Your task to perform on an android device: Open Wikipedia Image 0: 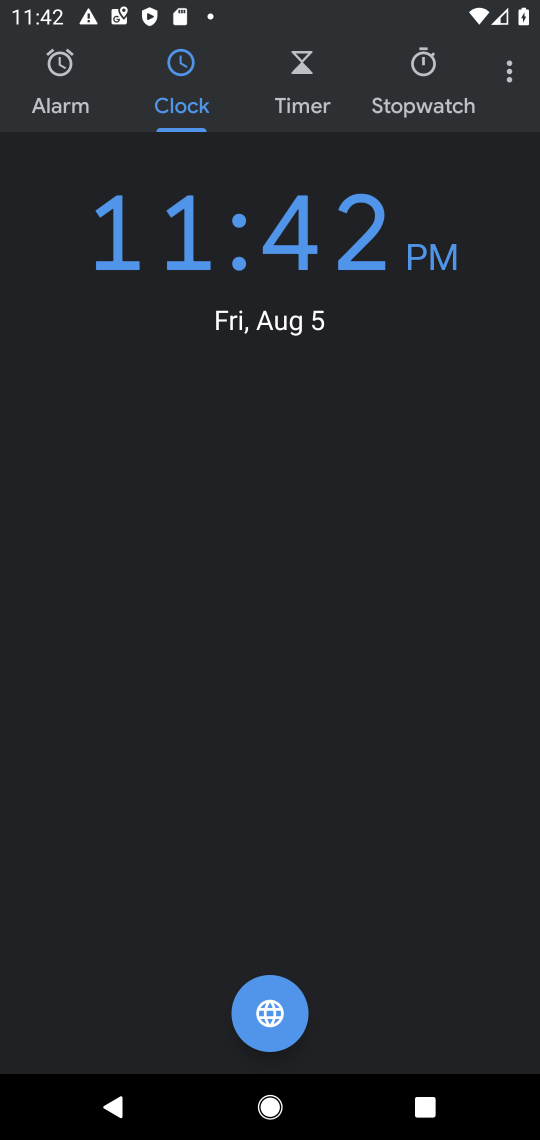
Step 0: press home button
Your task to perform on an android device: Open Wikipedia Image 1: 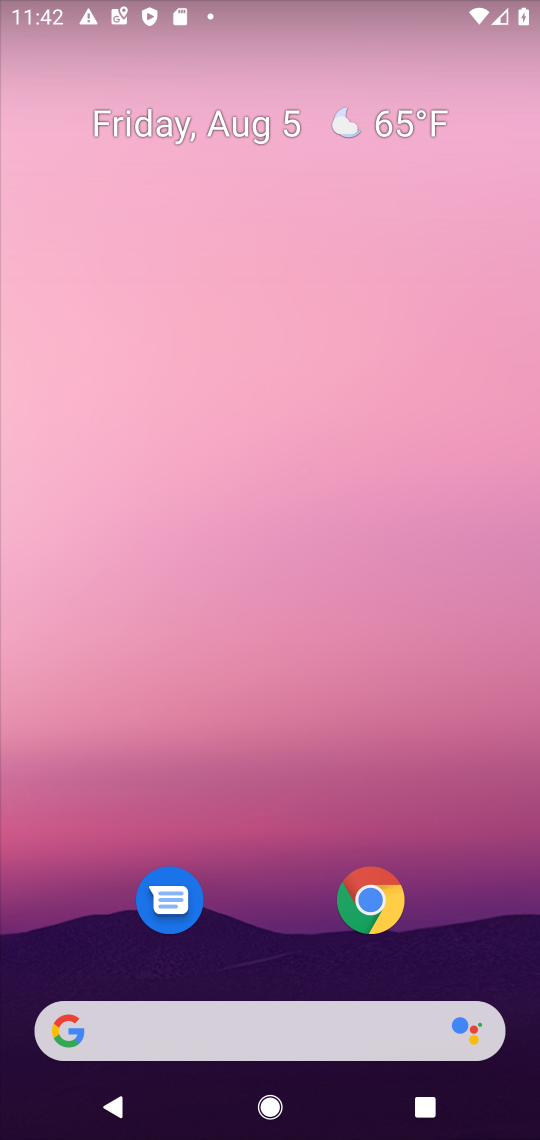
Step 1: click (360, 907)
Your task to perform on an android device: Open Wikipedia Image 2: 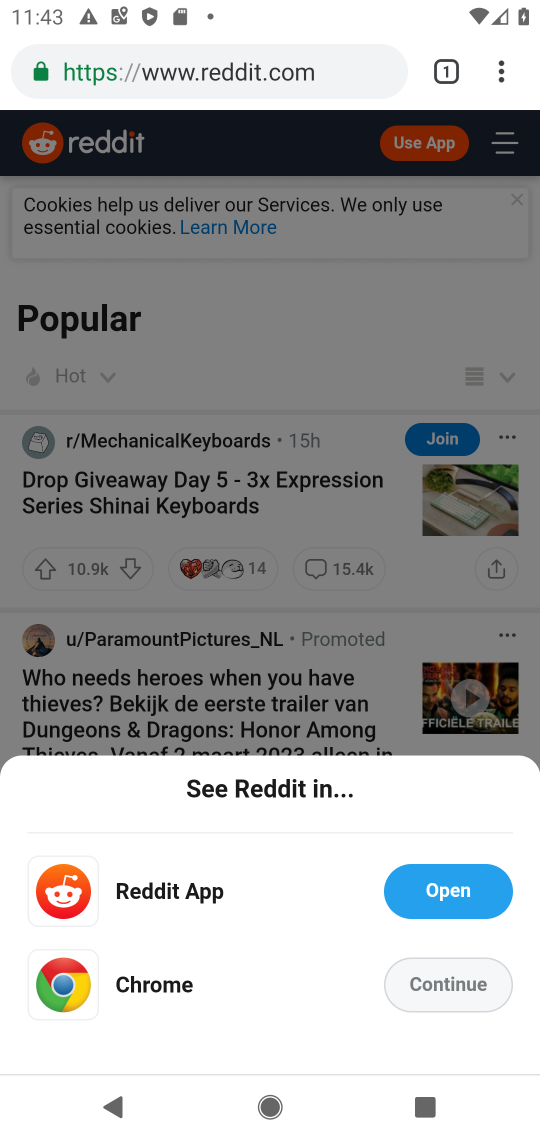
Step 2: click (499, 78)
Your task to perform on an android device: Open Wikipedia Image 3: 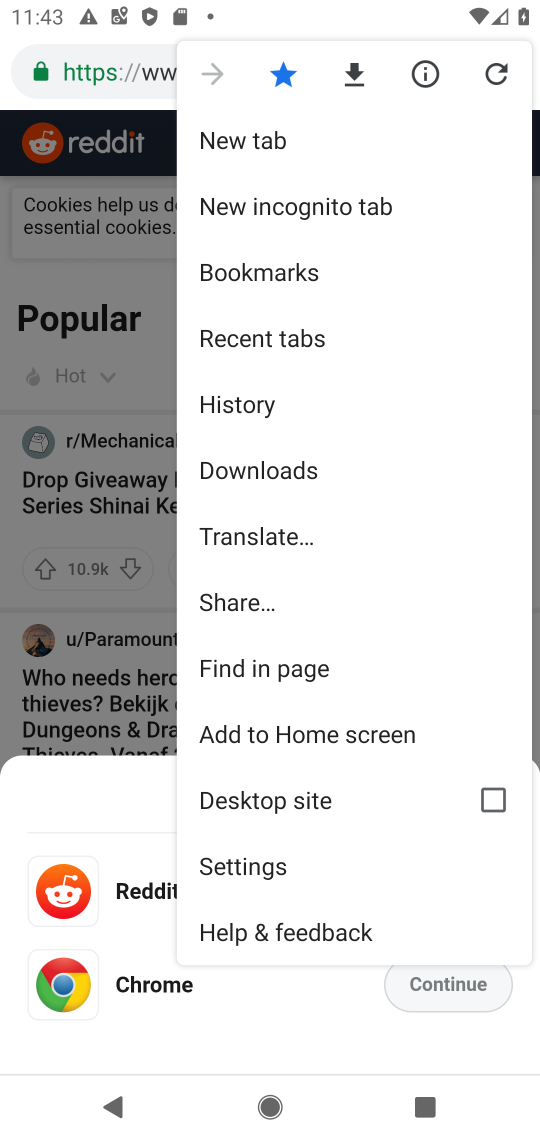
Step 3: click (241, 137)
Your task to perform on an android device: Open Wikipedia Image 4: 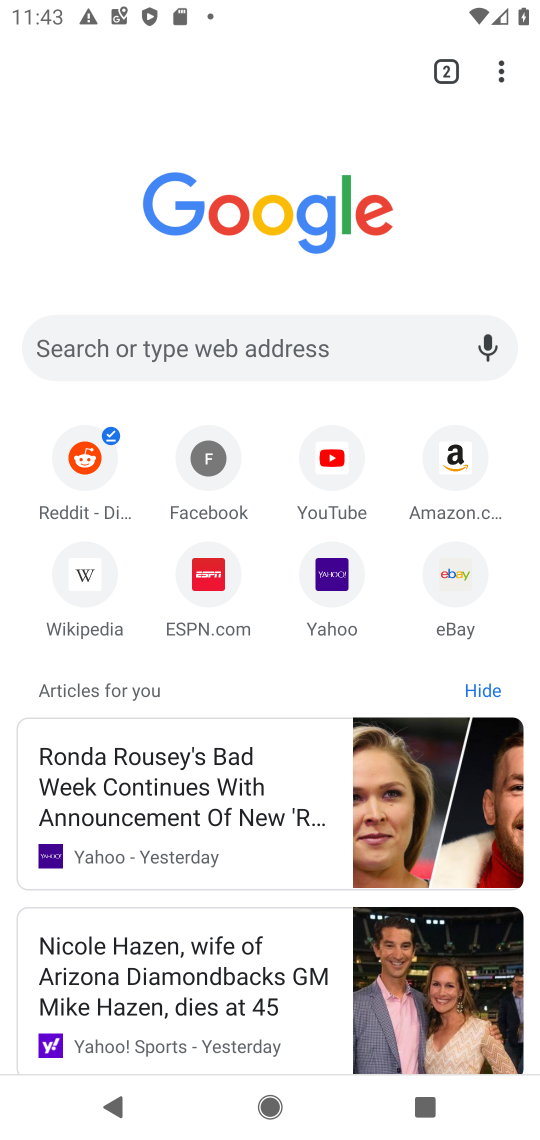
Step 4: click (85, 586)
Your task to perform on an android device: Open Wikipedia Image 5: 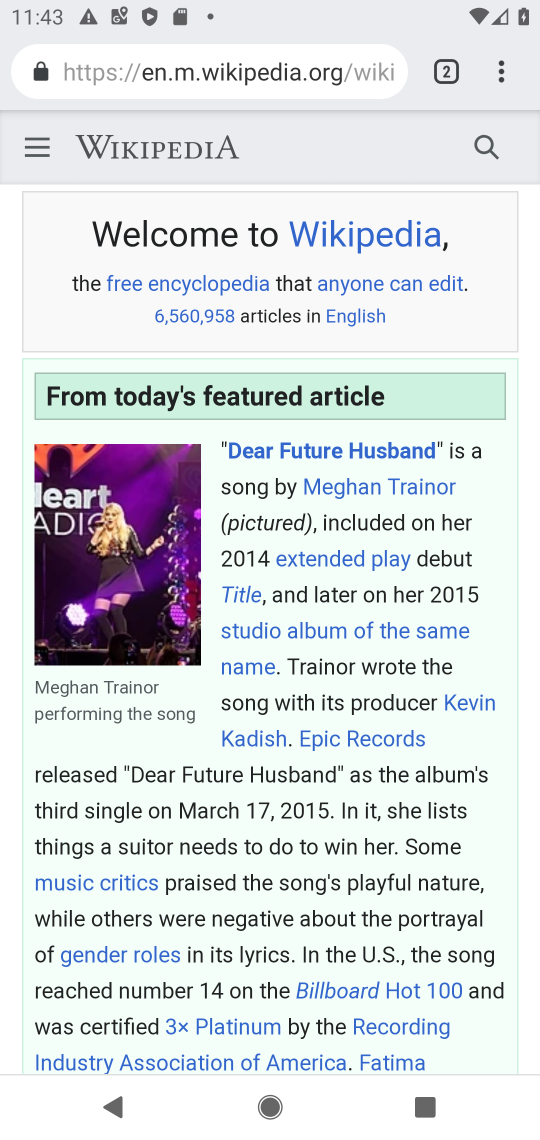
Step 5: task complete